Your task to perform on an android device: Play the last video I watched on Youtube Image 0: 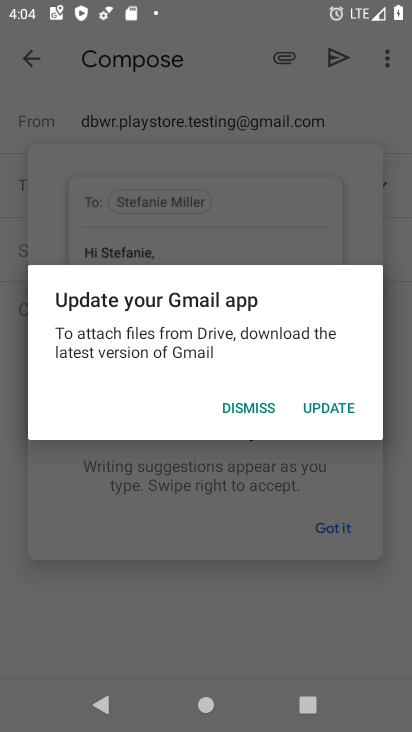
Step 0: press home button
Your task to perform on an android device: Play the last video I watched on Youtube Image 1: 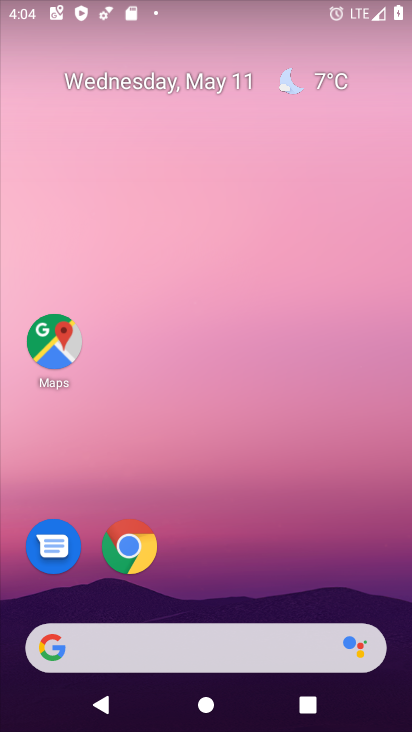
Step 1: drag from (211, 661) to (210, 64)
Your task to perform on an android device: Play the last video I watched on Youtube Image 2: 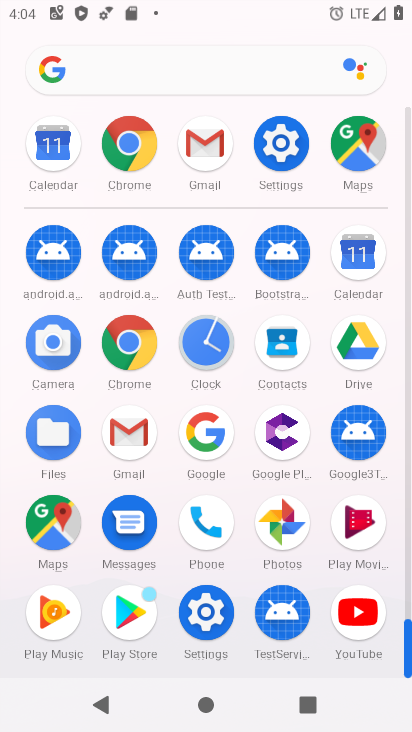
Step 2: click (365, 623)
Your task to perform on an android device: Play the last video I watched on Youtube Image 3: 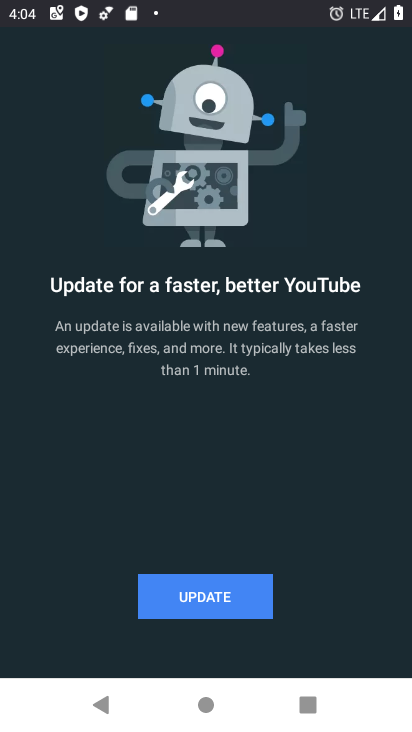
Step 3: click (220, 613)
Your task to perform on an android device: Play the last video I watched on Youtube Image 4: 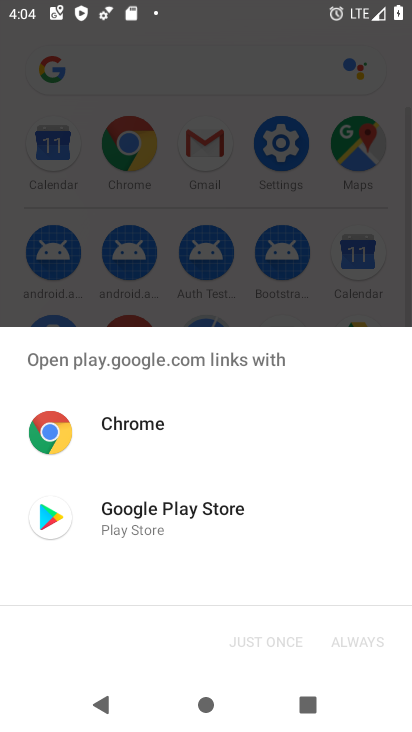
Step 4: click (143, 541)
Your task to perform on an android device: Play the last video I watched on Youtube Image 5: 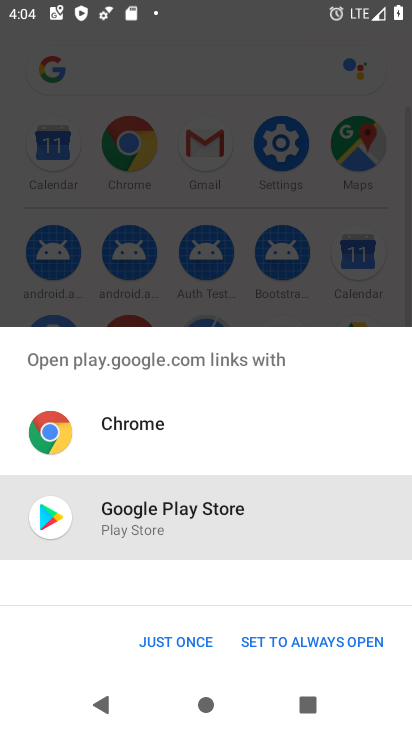
Step 5: click (170, 637)
Your task to perform on an android device: Play the last video I watched on Youtube Image 6: 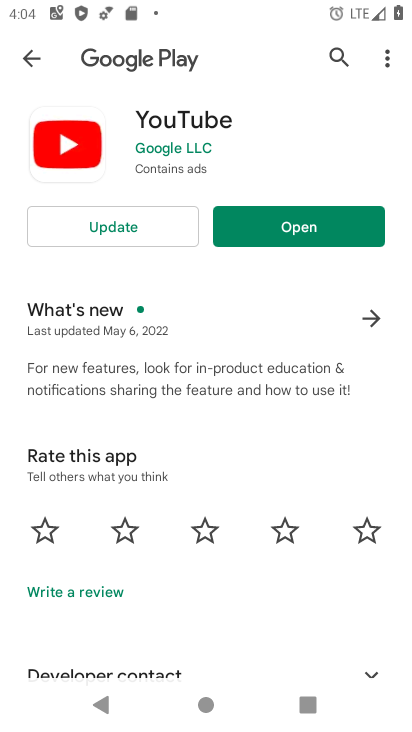
Step 6: click (61, 233)
Your task to perform on an android device: Play the last video I watched on Youtube Image 7: 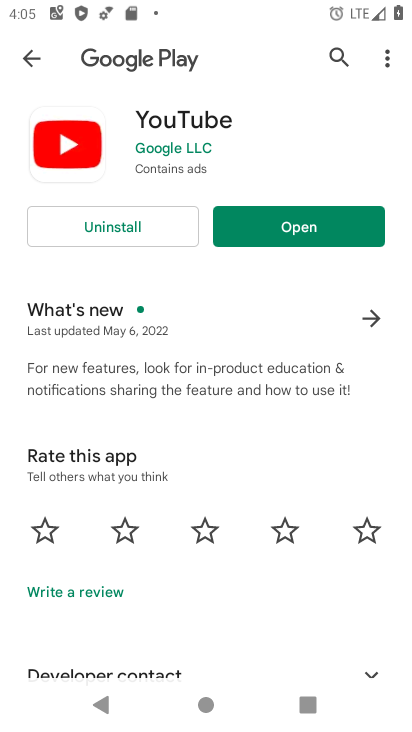
Step 7: task complete